Your task to perform on an android device: Open Google Image 0: 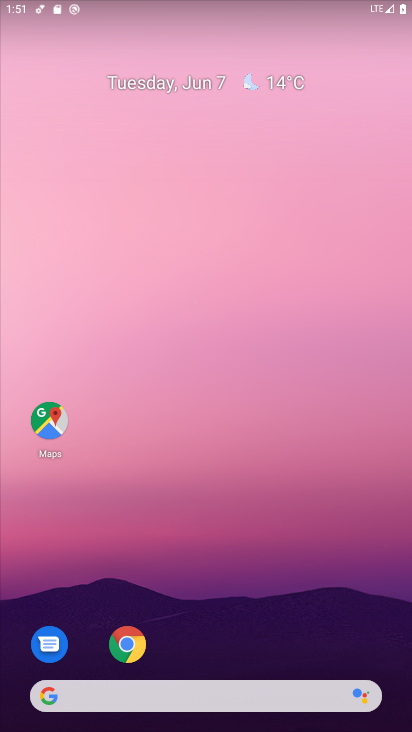
Step 0: drag from (206, 619) to (222, 23)
Your task to perform on an android device: Open Google Image 1: 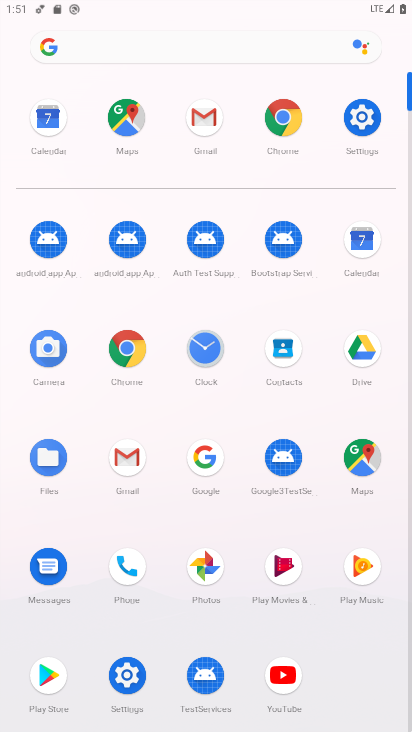
Step 1: click (203, 463)
Your task to perform on an android device: Open Google Image 2: 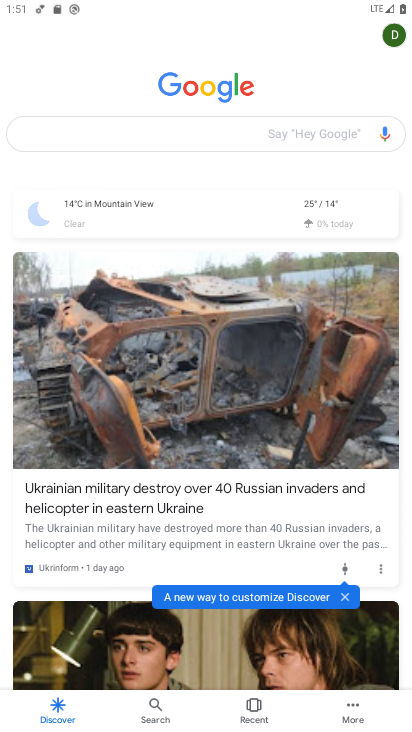
Step 2: task complete